Your task to perform on an android device: change timer sound Image 0: 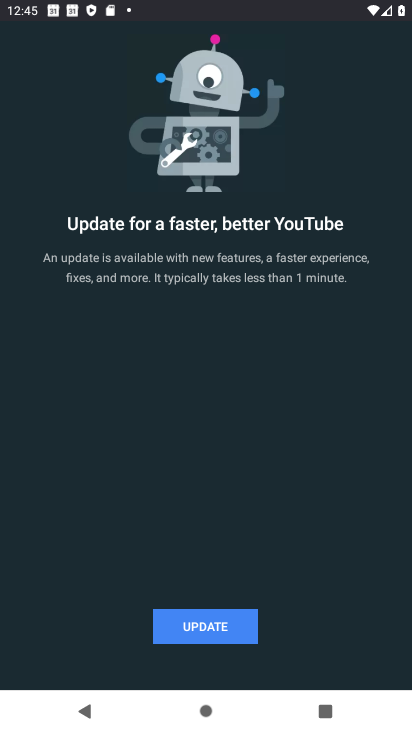
Step 0: task complete